Your task to perform on an android device: check google app version Image 0: 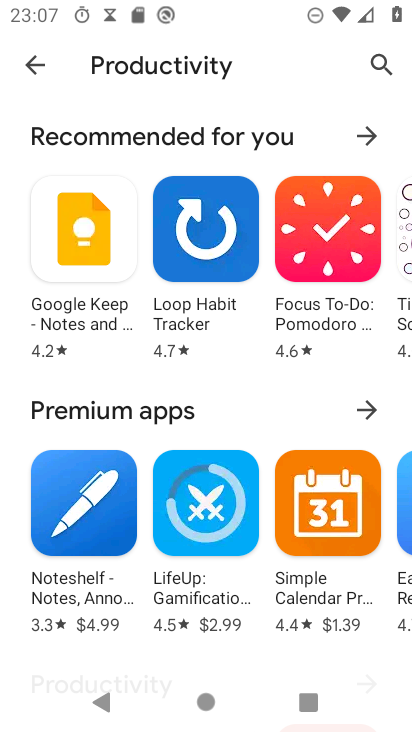
Step 0: press home button
Your task to perform on an android device: check google app version Image 1: 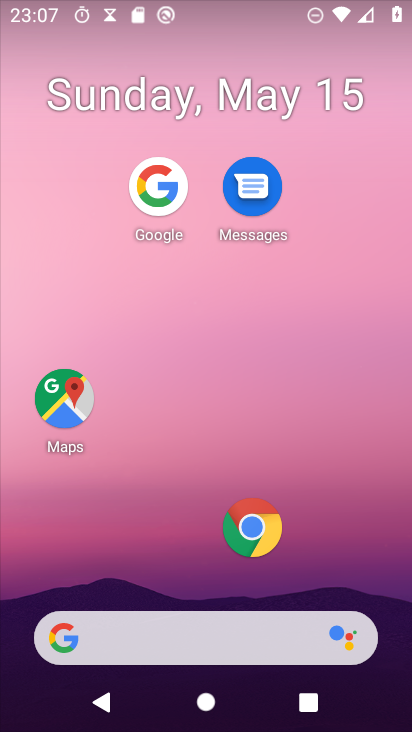
Step 1: click (156, 199)
Your task to perform on an android device: check google app version Image 2: 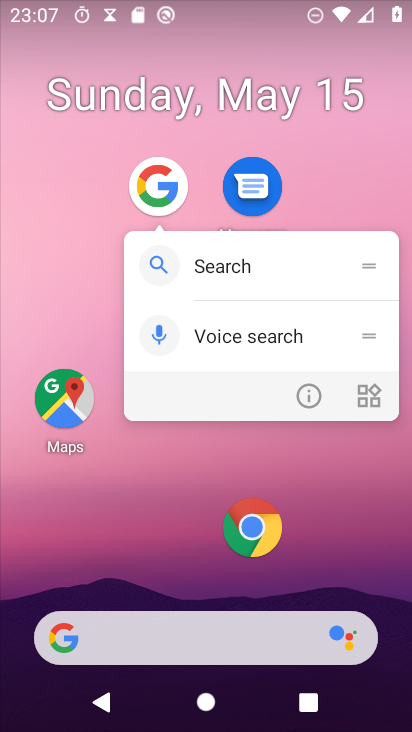
Step 2: click (296, 397)
Your task to perform on an android device: check google app version Image 3: 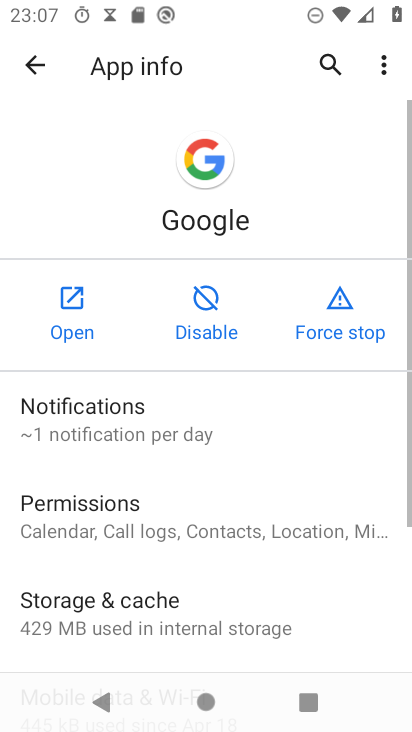
Step 3: drag from (225, 587) to (328, 127)
Your task to perform on an android device: check google app version Image 4: 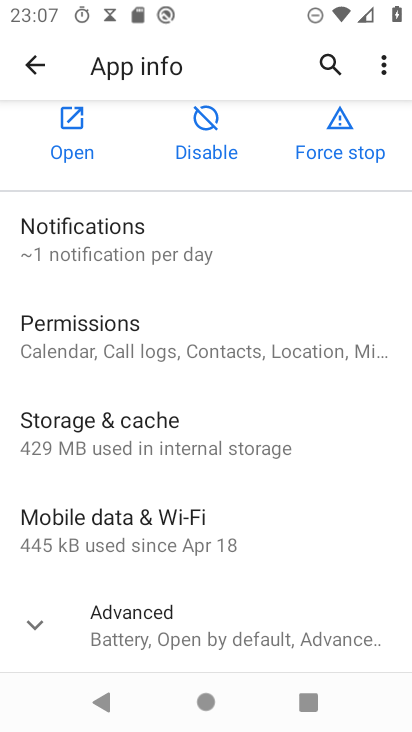
Step 4: click (158, 615)
Your task to perform on an android device: check google app version Image 5: 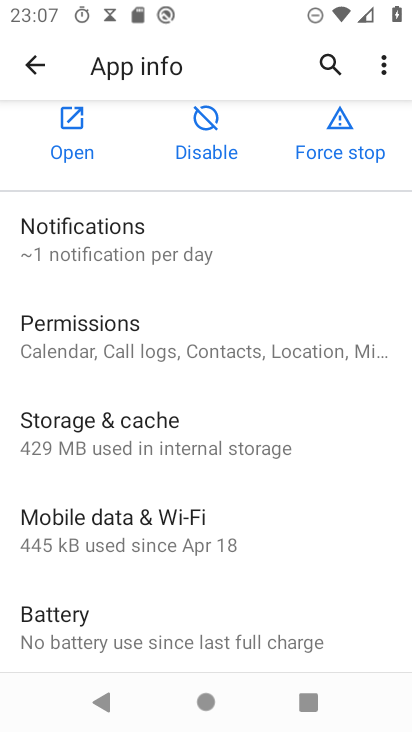
Step 5: task complete